Your task to perform on an android device: Is it going to rain tomorrow? Image 0: 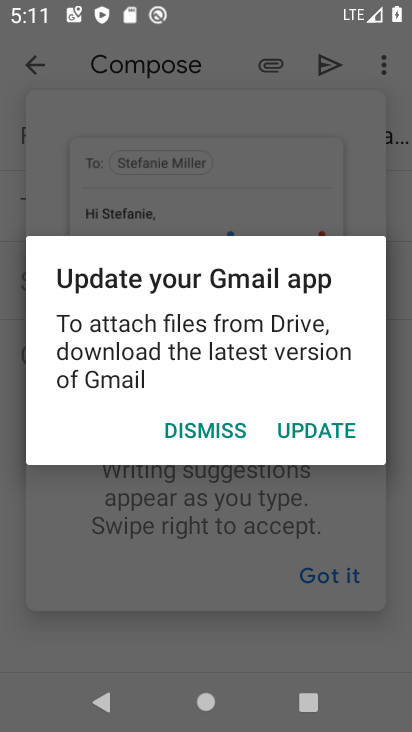
Step 0: press home button
Your task to perform on an android device: Is it going to rain tomorrow? Image 1: 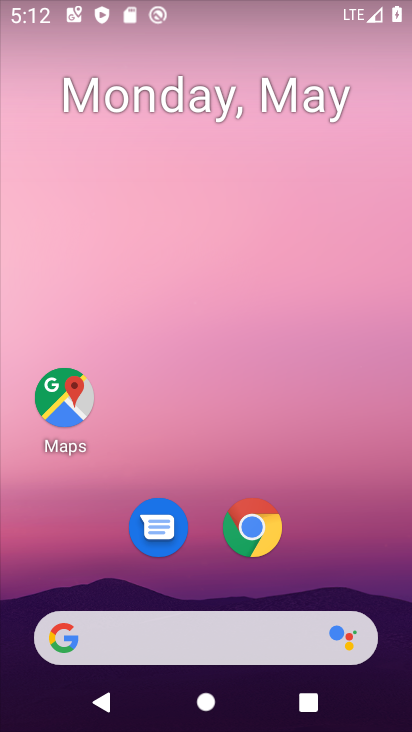
Step 1: drag from (4, 277) to (411, 256)
Your task to perform on an android device: Is it going to rain tomorrow? Image 2: 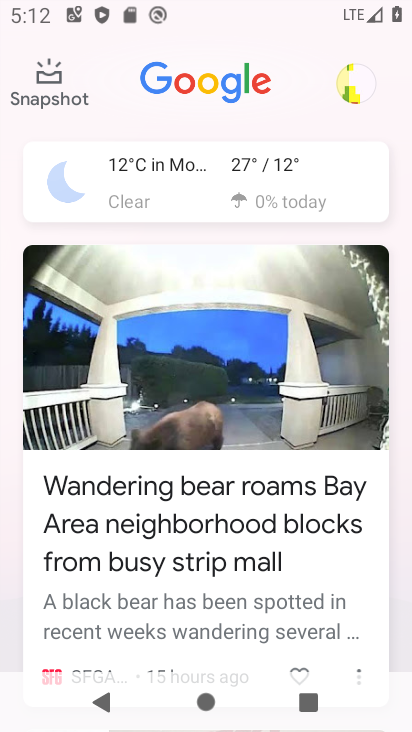
Step 2: click (262, 157)
Your task to perform on an android device: Is it going to rain tomorrow? Image 3: 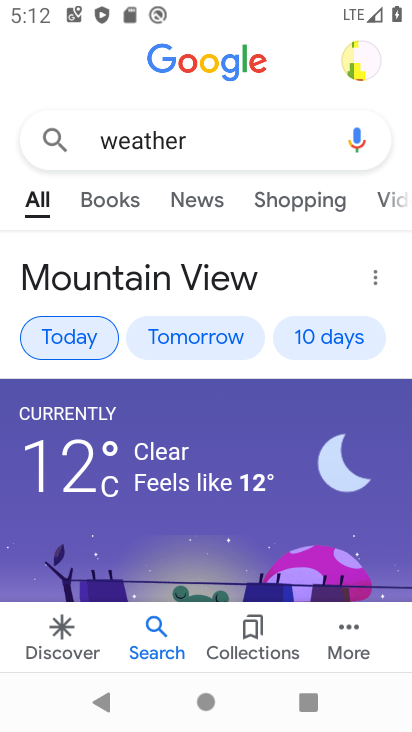
Step 3: click (174, 333)
Your task to perform on an android device: Is it going to rain tomorrow? Image 4: 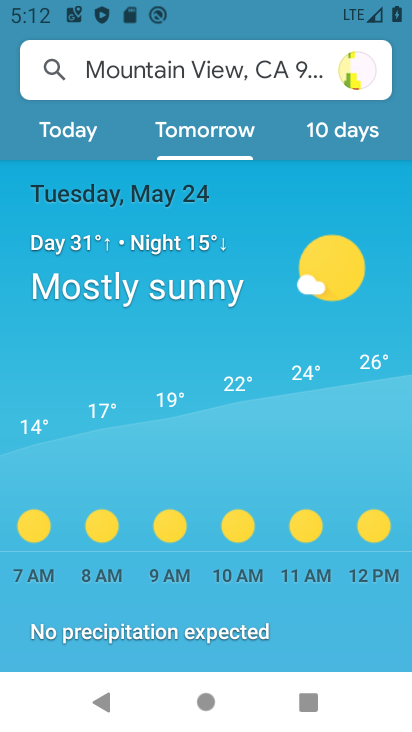
Step 4: task complete